Your task to perform on an android device: check storage Image 0: 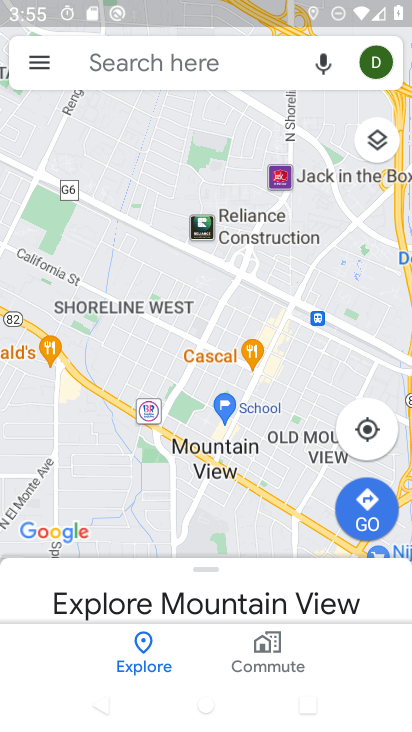
Step 0: click (35, 59)
Your task to perform on an android device: check storage Image 1: 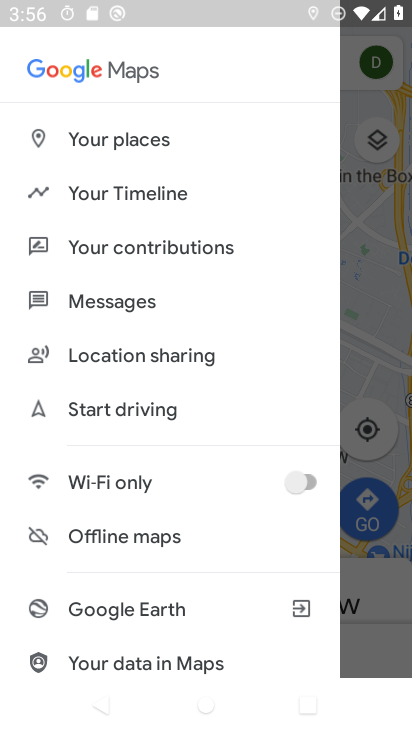
Step 1: press home button
Your task to perform on an android device: check storage Image 2: 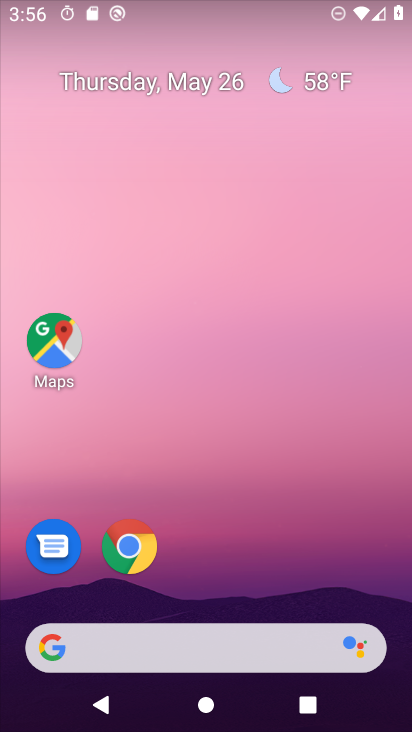
Step 2: drag from (199, 572) to (248, 17)
Your task to perform on an android device: check storage Image 3: 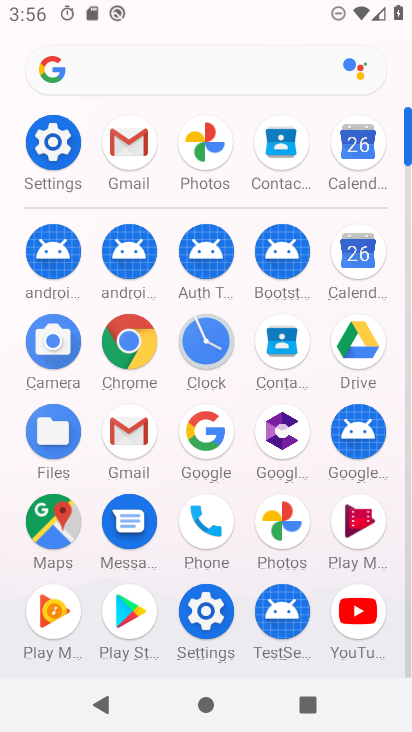
Step 3: click (53, 144)
Your task to perform on an android device: check storage Image 4: 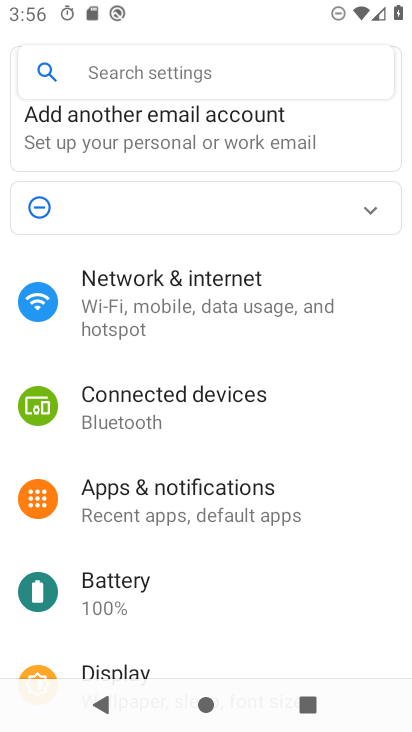
Step 4: drag from (172, 619) to (207, 177)
Your task to perform on an android device: check storage Image 5: 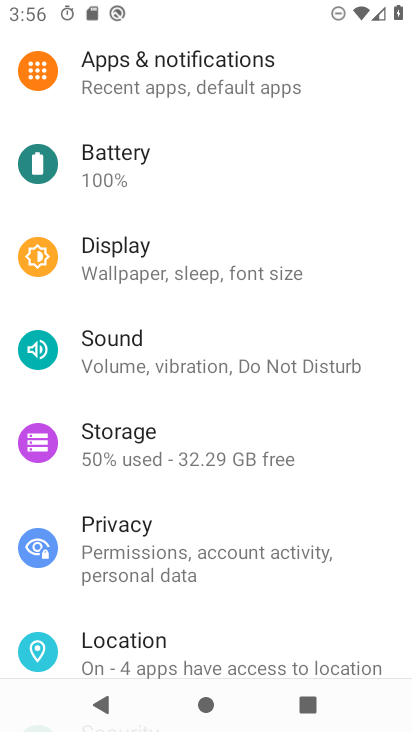
Step 5: click (166, 438)
Your task to perform on an android device: check storage Image 6: 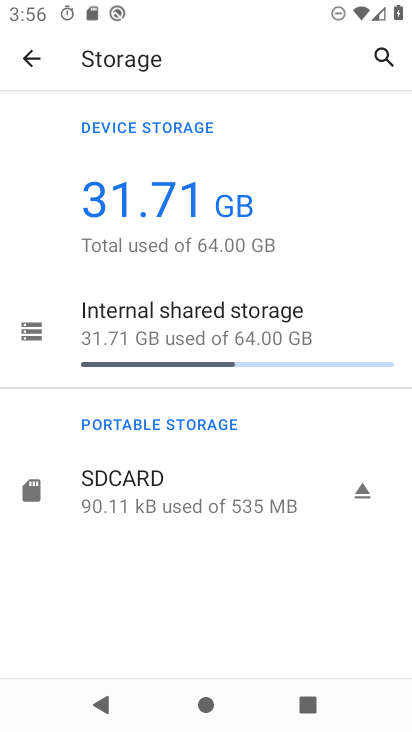
Step 6: task complete